Your task to perform on an android device: toggle data saver in the chrome app Image 0: 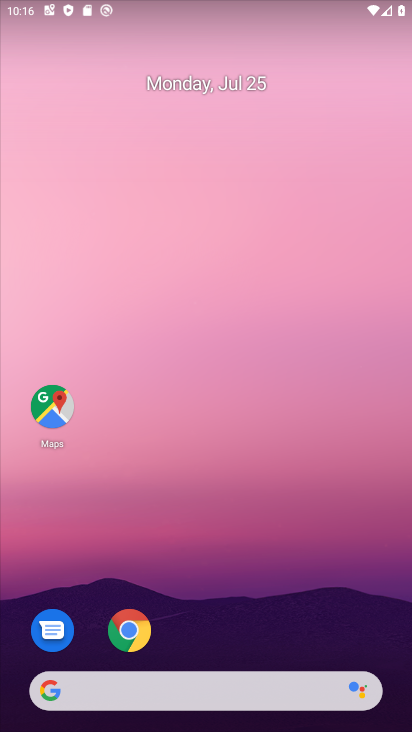
Step 0: press home button
Your task to perform on an android device: toggle data saver in the chrome app Image 1: 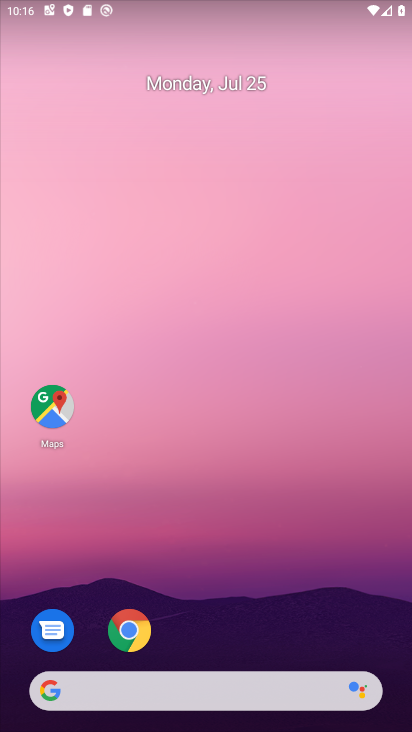
Step 1: drag from (358, 561) to (340, 152)
Your task to perform on an android device: toggle data saver in the chrome app Image 2: 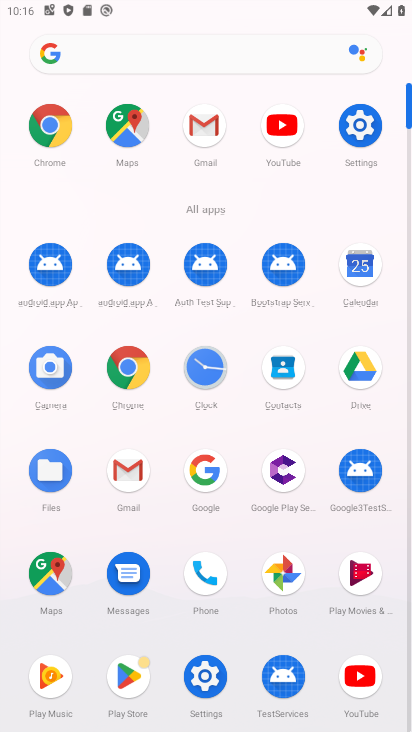
Step 2: click (129, 368)
Your task to perform on an android device: toggle data saver in the chrome app Image 3: 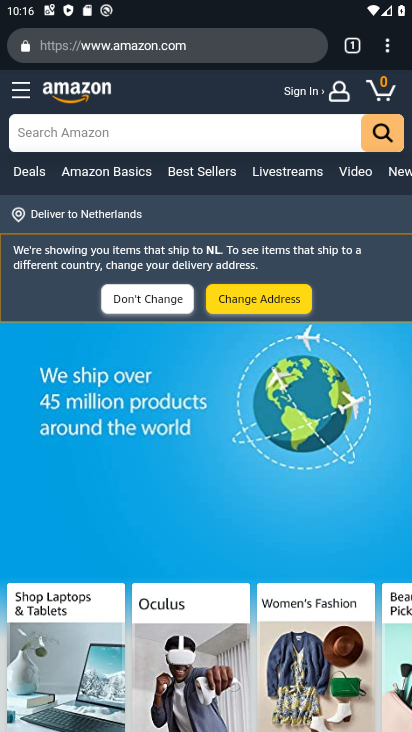
Step 3: click (386, 48)
Your task to perform on an android device: toggle data saver in the chrome app Image 4: 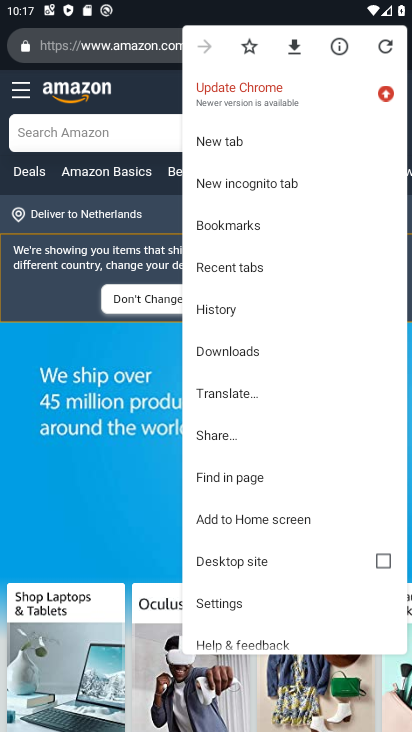
Step 4: click (238, 604)
Your task to perform on an android device: toggle data saver in the chrome app Image 5: 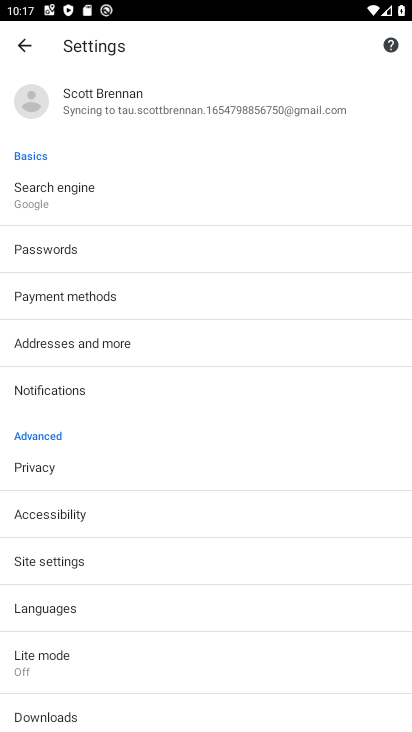
Step 5: drag from (296, 574) to (295, 412)
Your task to perform on an android device: toggle data saver in the chrome app Image 6: 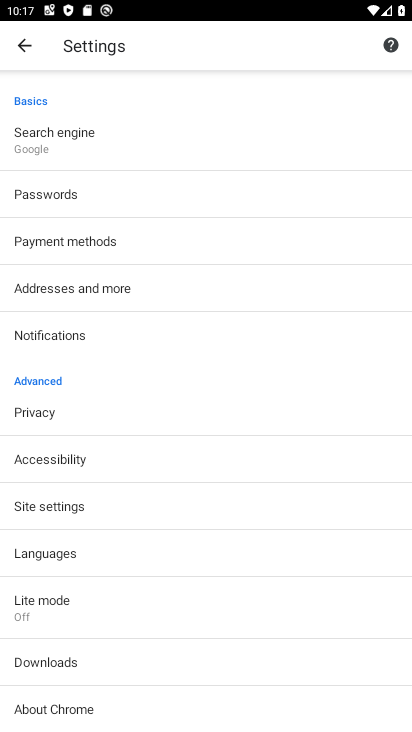
Step 6: drag from (312, 586) to (329, 405)
Your task to perform on an android device: toggle data saver in the chrome app Image 7: 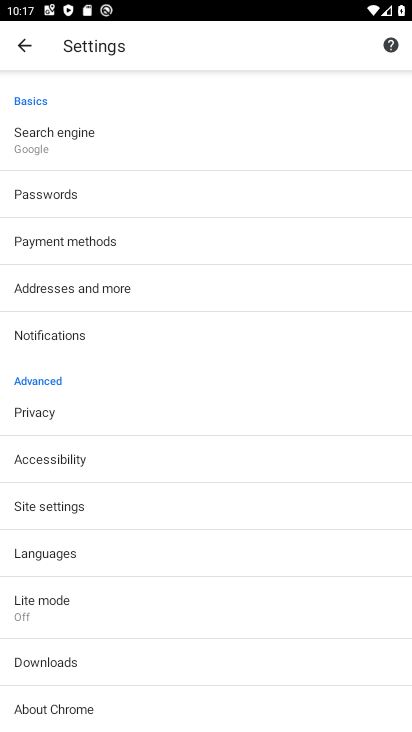
Step 7: drag from (262, 273) to (265, 397)
Your task to perform on an android device: toggle data saver in the chrome app Image 8: 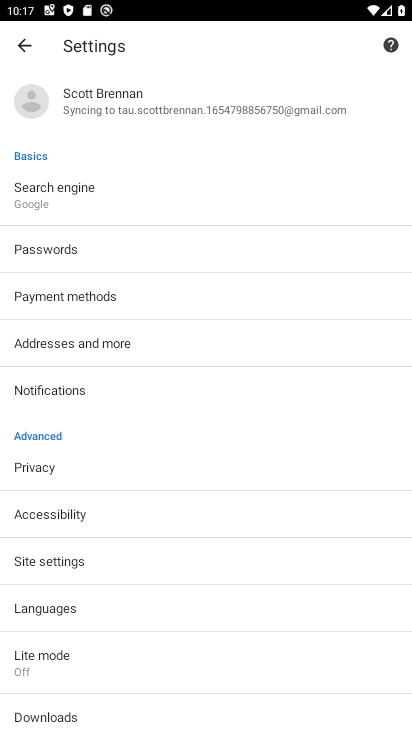
Step 8: drag from (268, 531) to (270, 391)
Your task to perform on an android device: toggle data saver in the chrome app Image 9: 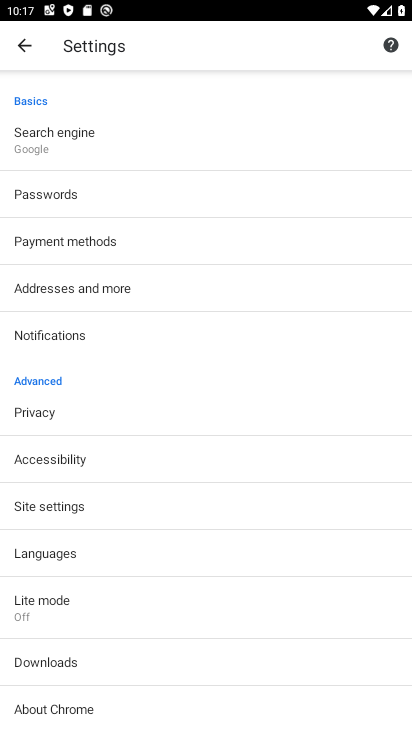
Step 9: click (270, 598)
Your task to perform on an android device: toggle data saver in the chrome app Image 10: 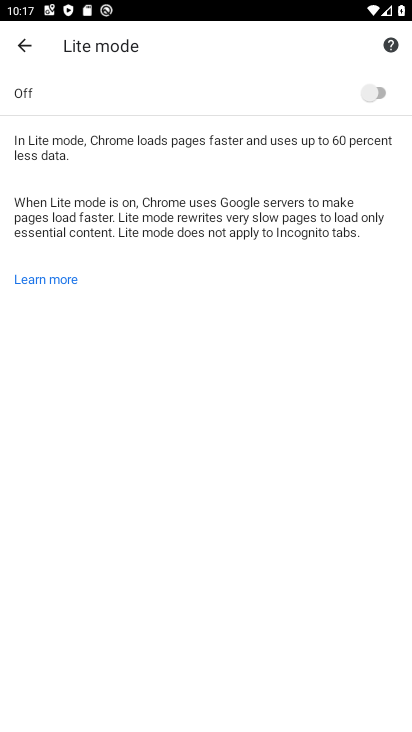
Step 10: click (371, 83)
Your task to perform on an android device: toggle data saver in the chrome app Image 11: 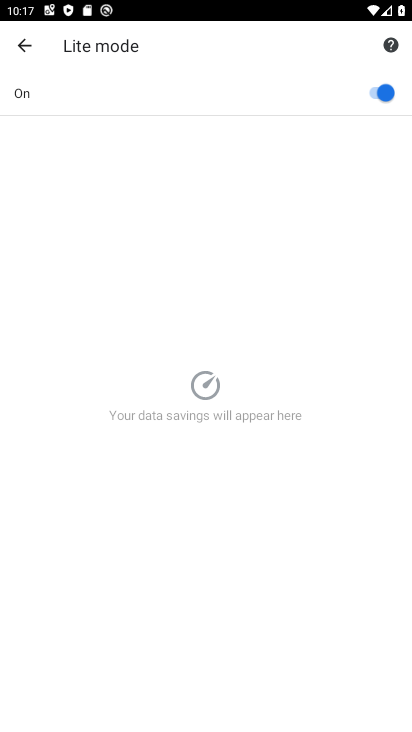
Step 11: task complete